Your task to perform on an android device: Open calendar and show me the second week of next month Image 0: 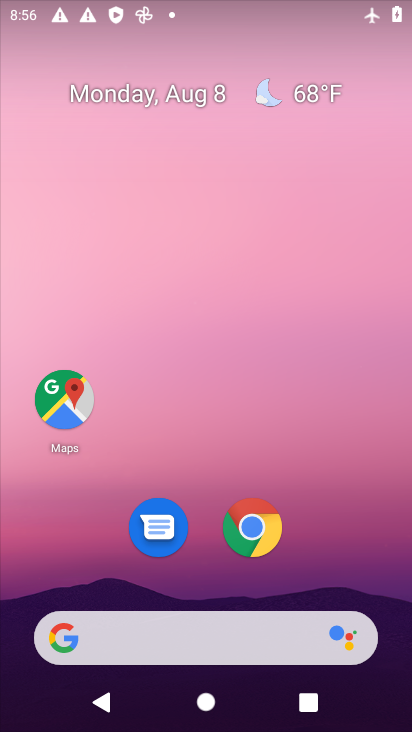
Step 0: drag from (383, 673) to (344, 191)
Your task to perform on an android device: Open calendar and show me the second week of next month Image 1: 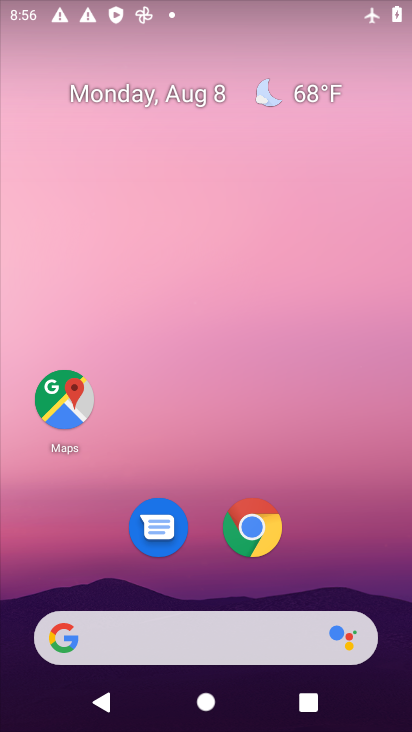
Step 1: drag from (374, 710) to (338, 76)
Your task to perform on an android device: Open calendar and show me the second week of next month Image 2: 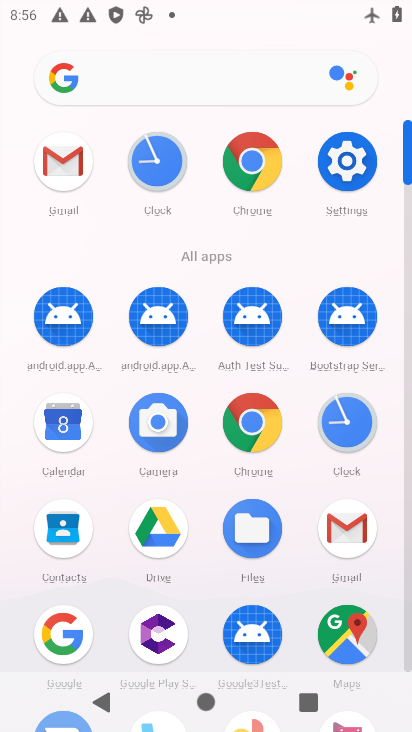
Step 2: click (326, 157)
Your task to perform on an android device: Open calendar and show me the second week of next month Image 3: 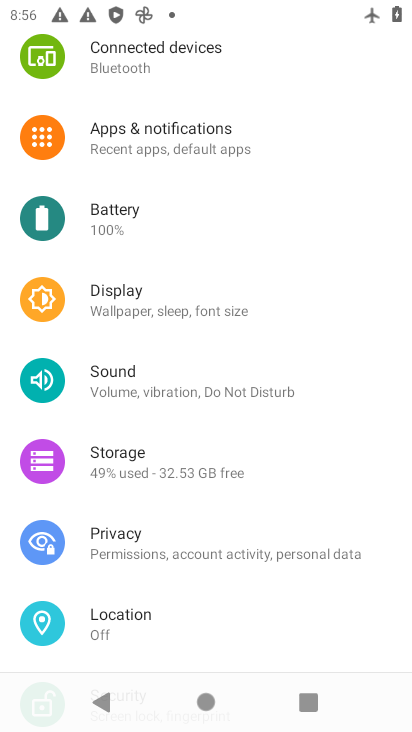
Step 3: drag from (332, 77) to (392, 545)
Your task to perform on an android device: Open calendar and show me the second week of next month Image 4: 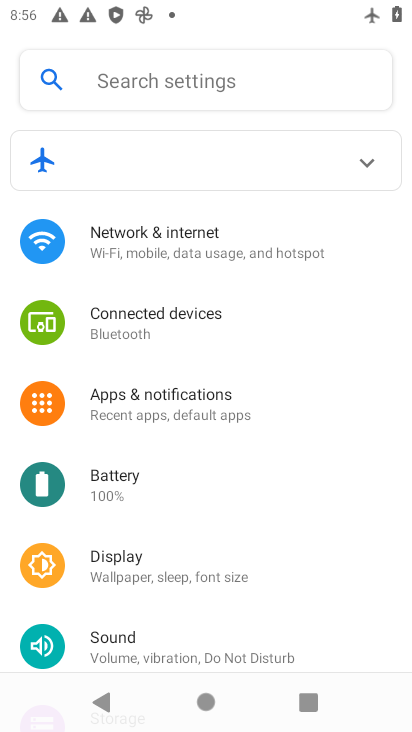
Step 4: click (169, 242)
Your task to perform on an android device: Open calendar and show me the second week of next month Image 5: 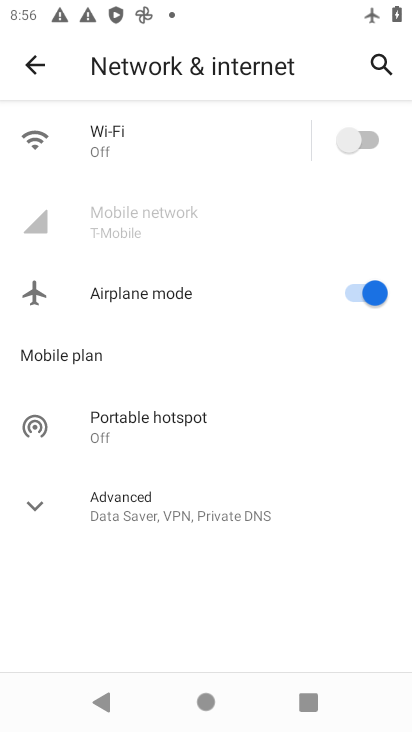
Step 5: click (367, 288)
Your task to perform on an android device: Open calendar and show me the second week of next month Image 6: 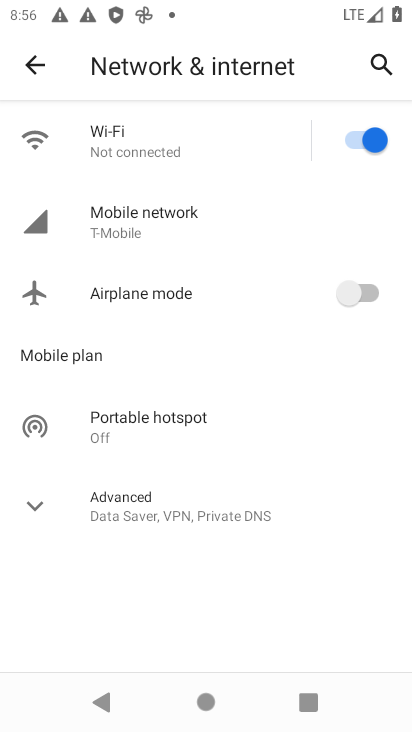
Step 6: click (370, 133)
Your task to perform on an android device: Open calendar and show me the second week of next month Image 7: 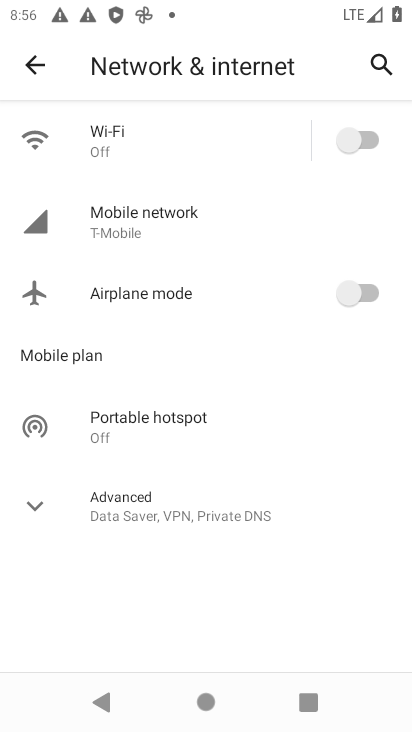
Step 7: click (359, 140)
Your task to perform on an android device: Open calendar and show me the second week of next month Image 8: 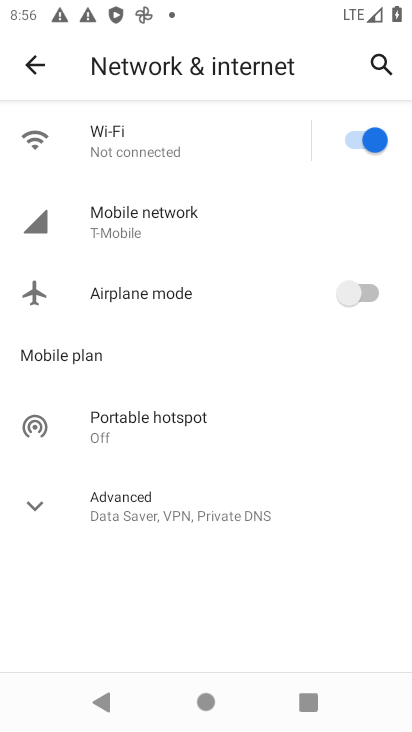
Step 8: click (32, 65)
Your task to perform on an android device: Open calendar and show me the second week of next month Image 9: 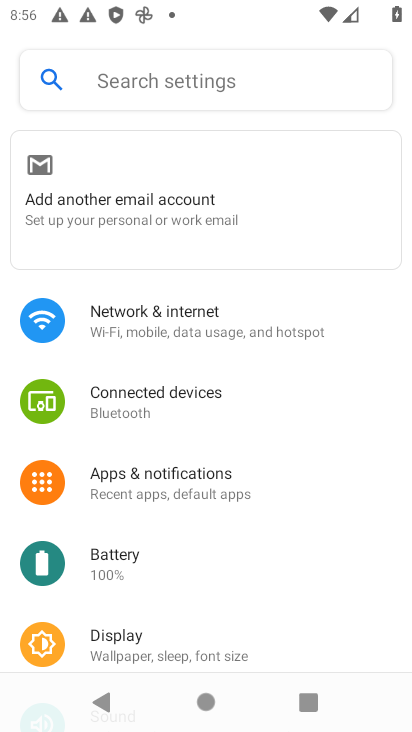
Step 9: press back button
Your task to perform on an android device: Open calendar and show me the second week of next month Image 10: 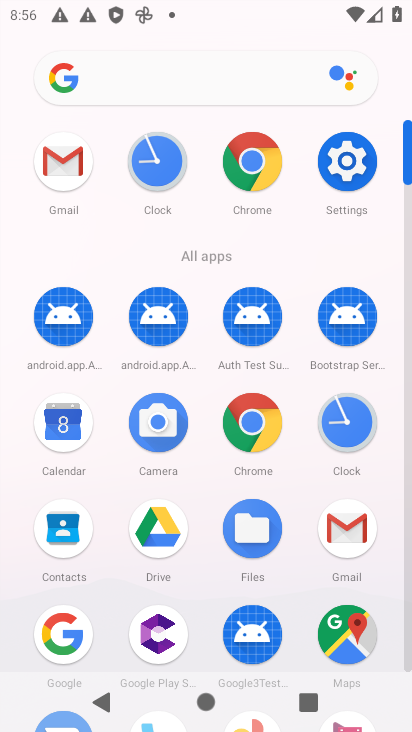
Step 10: click (47, 426)
Your task to perform on an android device: Open calendar and show me the second week of next month Image 11: 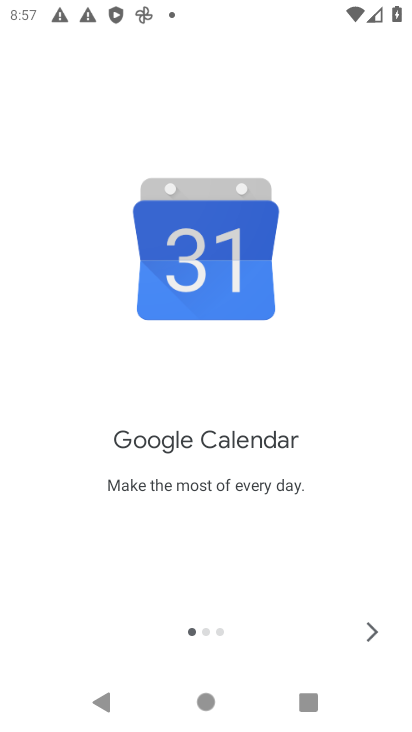
Step 11: click (363, 626)
Your task to perform on an android device: Open calendar and show me the second week of next month Image 12: 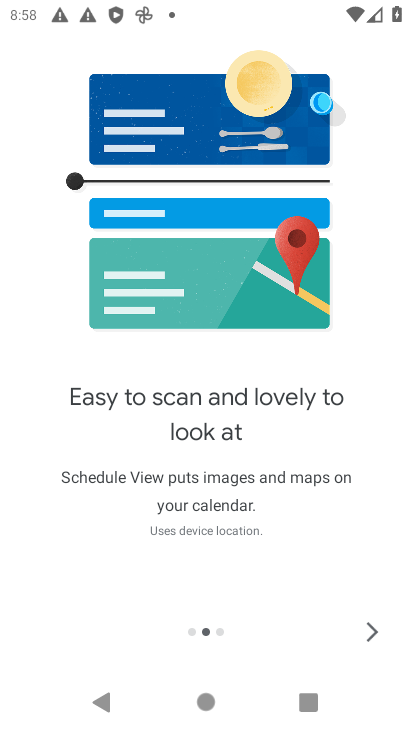
Step 12: click (380, 632)
Your task to perform on an android device: Open calendar and show me the second week of next month Image 13: 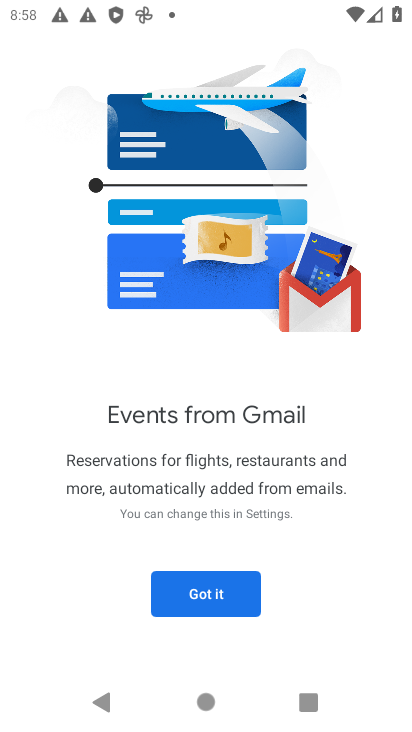
Step 13: click (184, 580)
Your task to perform on an android device: Open calendar and show me the second week of next month Image 14: 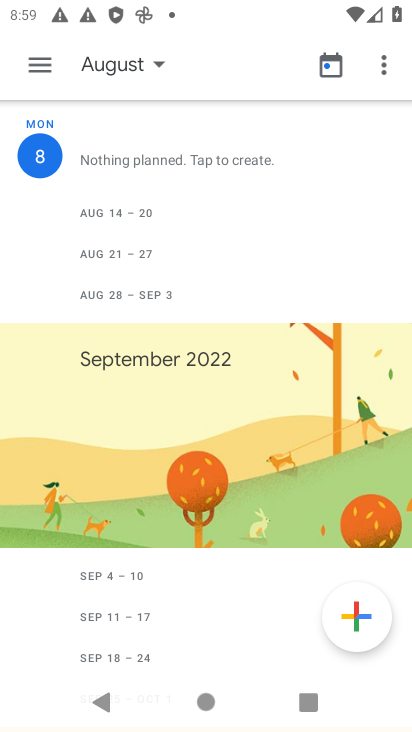
Step 14: click (149, 64)
Your task to perform on an android device: Open calendar and show me the second week of next month Image 15: 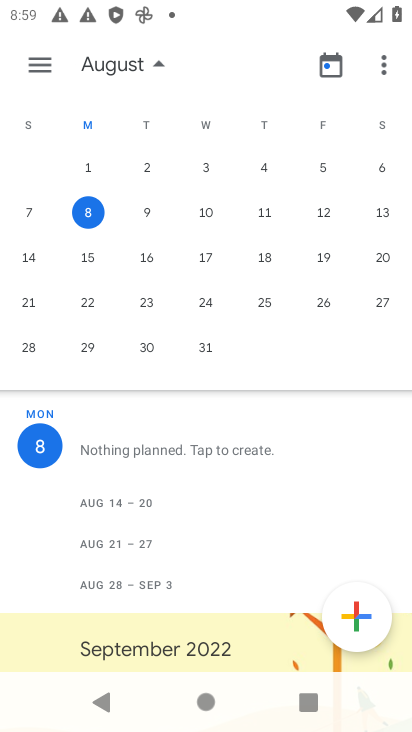
Step 15: drag from (397, 238) to (85, 266)
Your task to perform on an android device: Open calendar and show me the second week of next month Image 16: 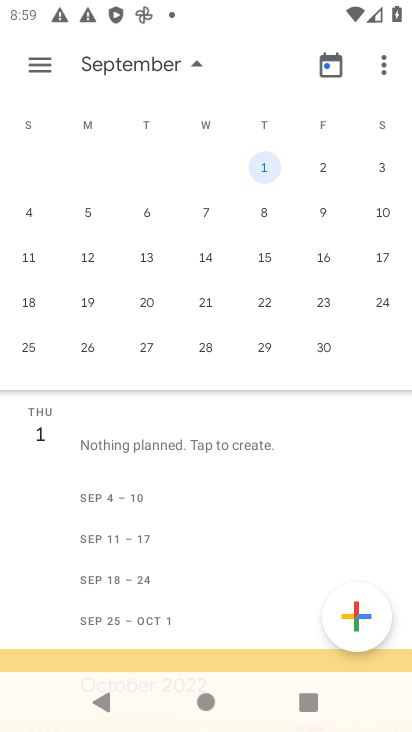
Step 16: click (258, 211)
Your task to perform on an android device: Open calendar and show me the second week of next month Image 17: 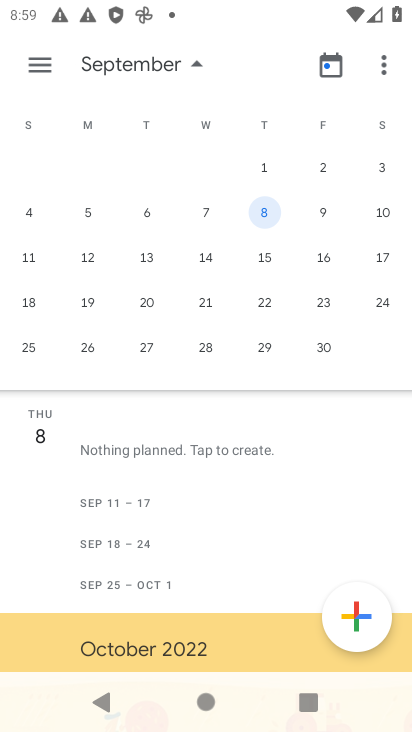
Step 17: click (44, 66)
Your task to perform on an android device: Open calendar and show me the second week of next month Image 18: 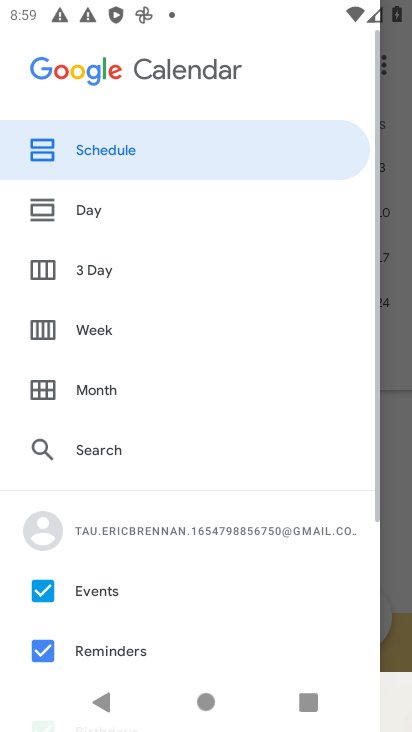
Step 18: click (77, 338)
Your task to perform on an android device: Open calendar and show me the second week of next month Image 19: 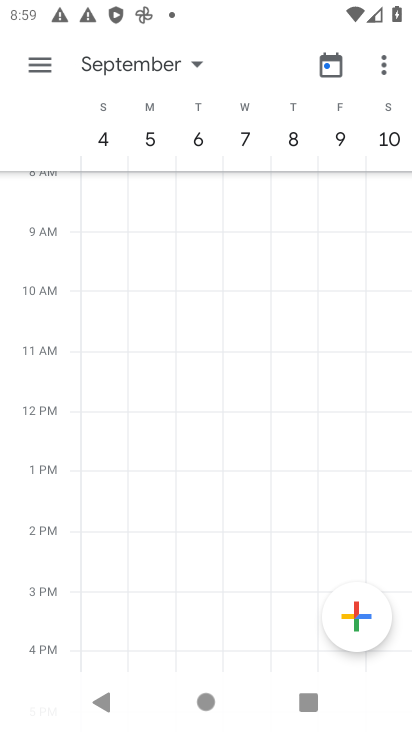
Step 19: click (47, 64)
Your task to perform on an android device: Open calendar and show me the second week of next month Image 20: 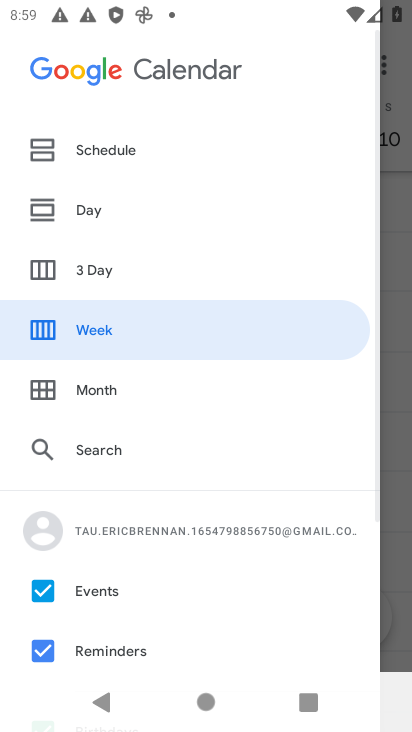
Step 20: click (97, 139)
Your task to perform on an android device: Open calendar and show me the second week of next month Image 21: 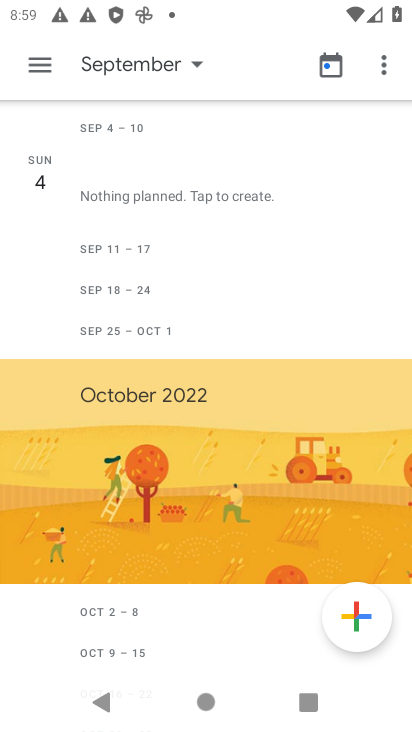
Step 21: task complete